Your task to perform on an android device: turn off wifi Image 0: 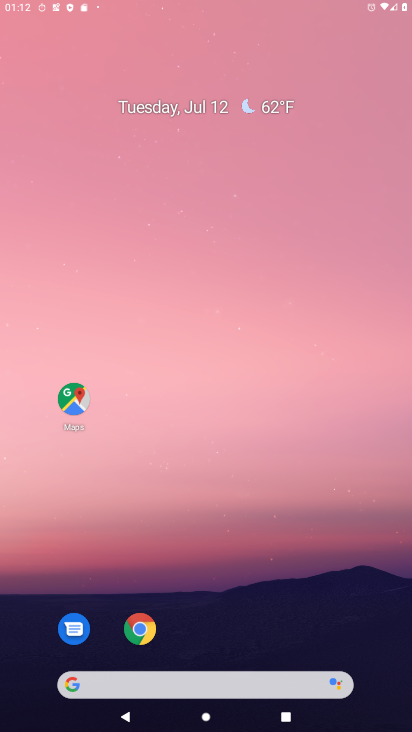
Step 0: drag from (347, 332) to (383, 129)
Your task to perform on an android device: turn off wifi Image 1: 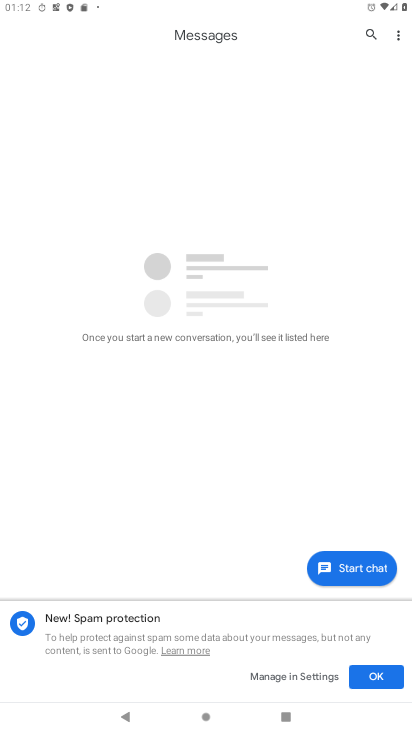
Step 1: press home button
Your task to perform on an android device: turn off wifi Image 2: 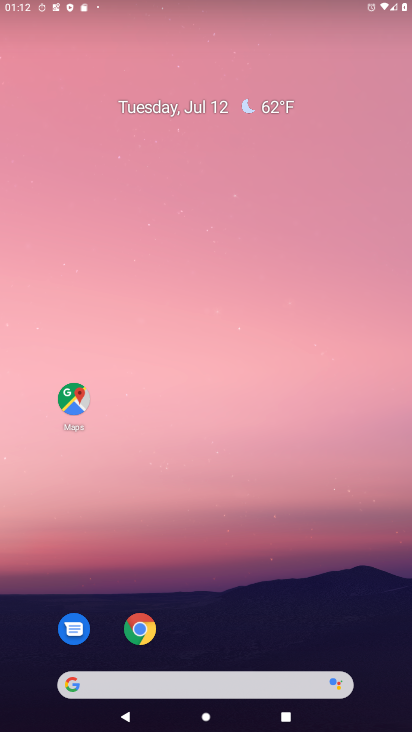
Step 2: drag from (275, 8) to (258, 477)
Your task to perform on an android device: turn off wifi Image 3: 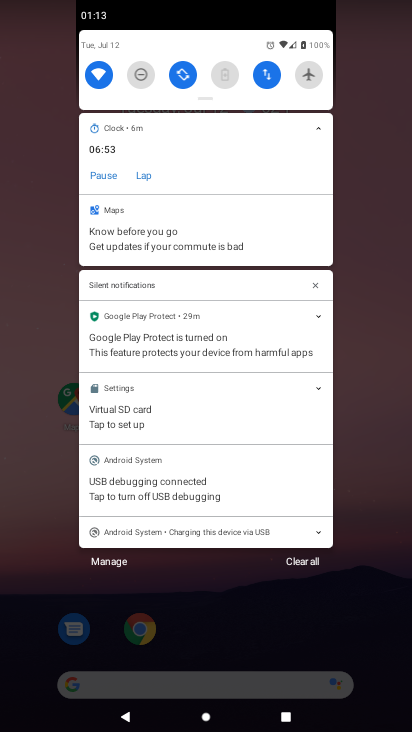
Step 3: click (102, 70)
Your task to perform on an android device: turn off wifi Image 4: 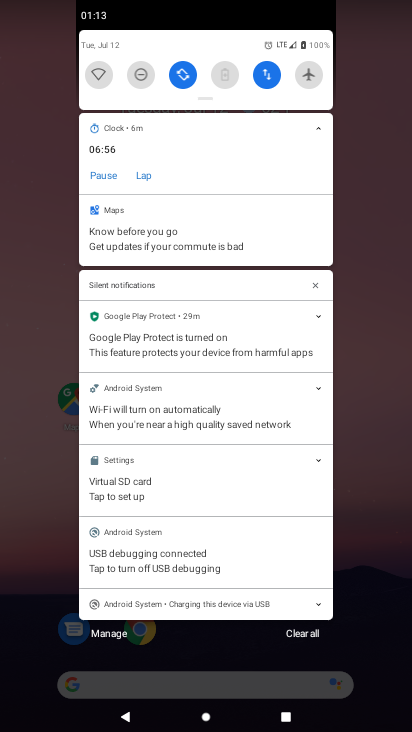
Step 4: task complete